Your task to perform on an android device: turn off wifi Image 0: 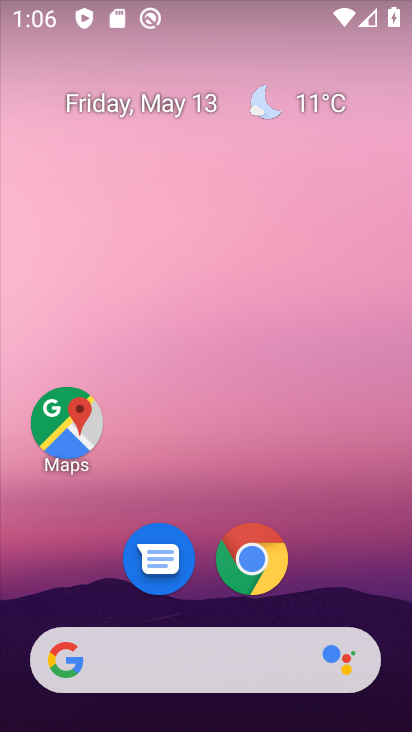
Step 0: drag from (408, 657) to (350, 294)
Your task to perform on an android device: turn off wifi Image 1: 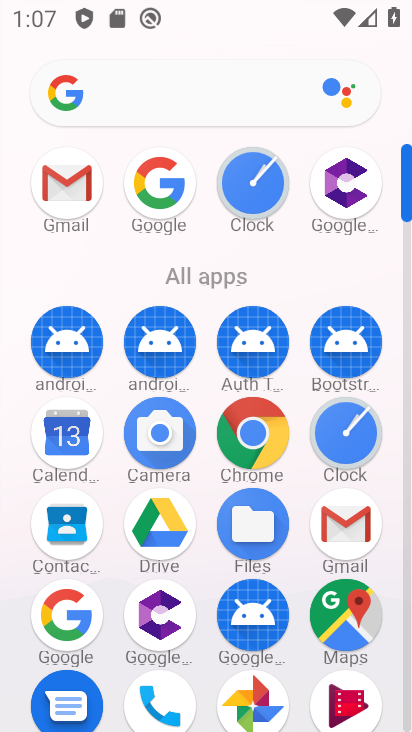
Step 1: drag from (409, 149) to (399, 112)
Your task to perform on an android device: turn off wifi Image 2: 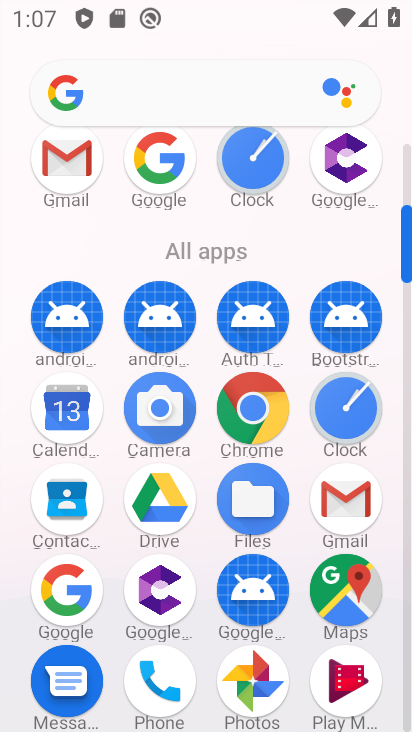
Step 2: drag from (408, 221) to (406, 166)
Your task to perform on an android device: turn off wifi Image 3: 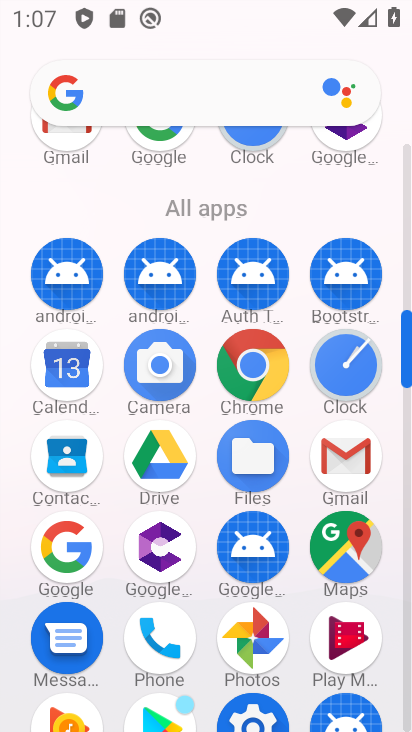
Step 3: drag from (405, 313) to (406, 210)
Your task to perform on an android device: turn off wifi Image 4: 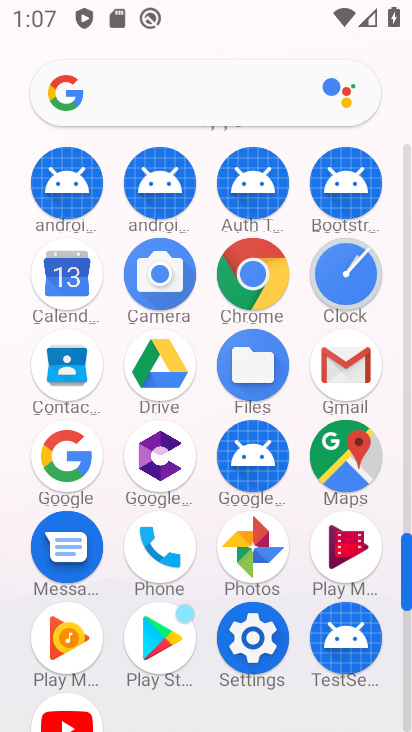
Step 4: click (269, 647)
Your task to perform on an android device: turn off wifi Image 5: 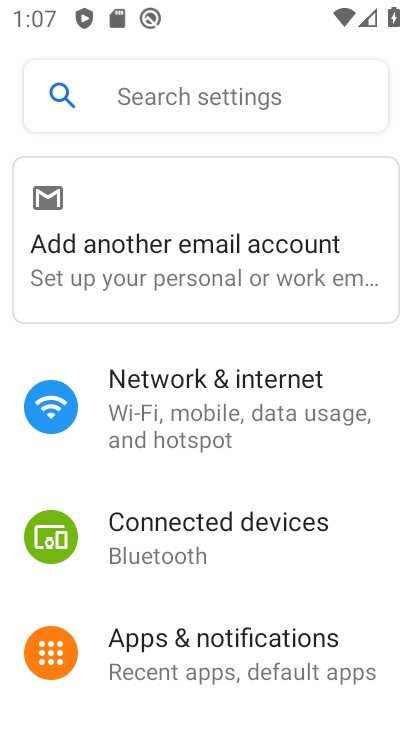
Step 5: click (147, 401)
Your task to perform on an android device: turn off wifi Image 6: 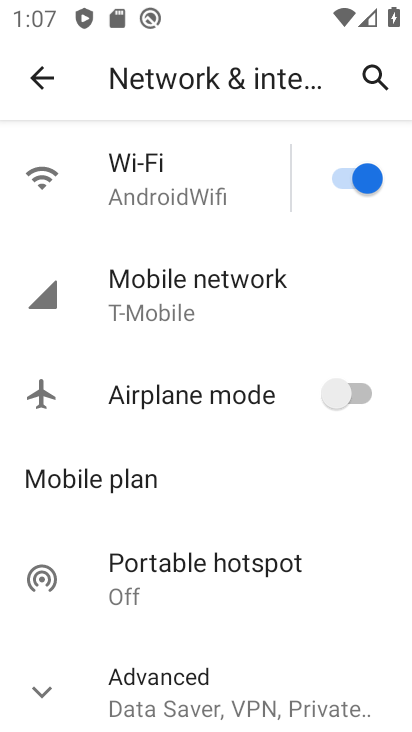
Step 6: click (343, 172)
Your task to perform on an android device: turn off wifi Image 7: 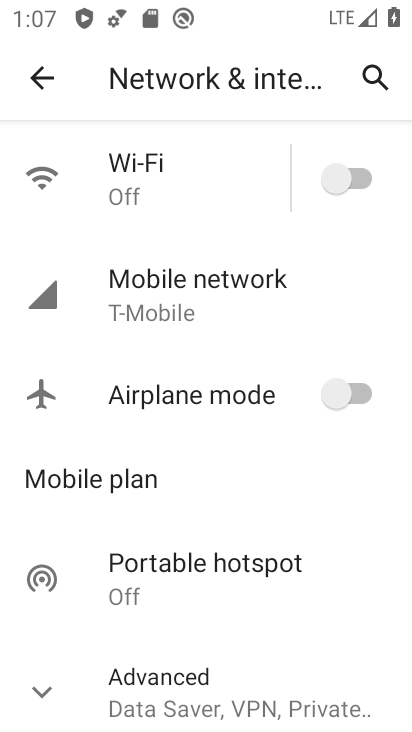
Step 7: task complete